Your task to perform on an android device: open app "Firefox Browser" (install if not already installed) and go to login screen Image 0: 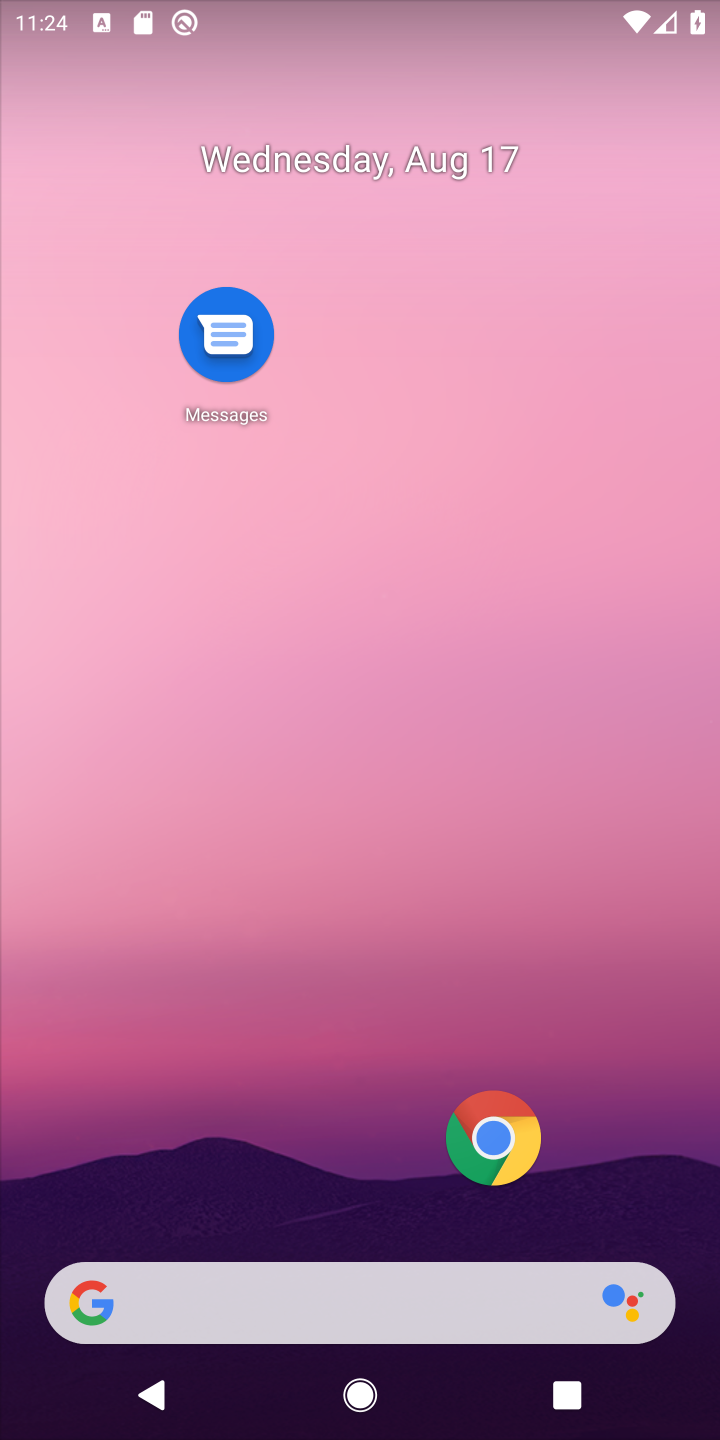
Step 0: drag from (394, 1279) to (562, 476)
Your task to perform on an android device: open app "Firefox Browser" (install if not already installed) and go to login screen Image 1: 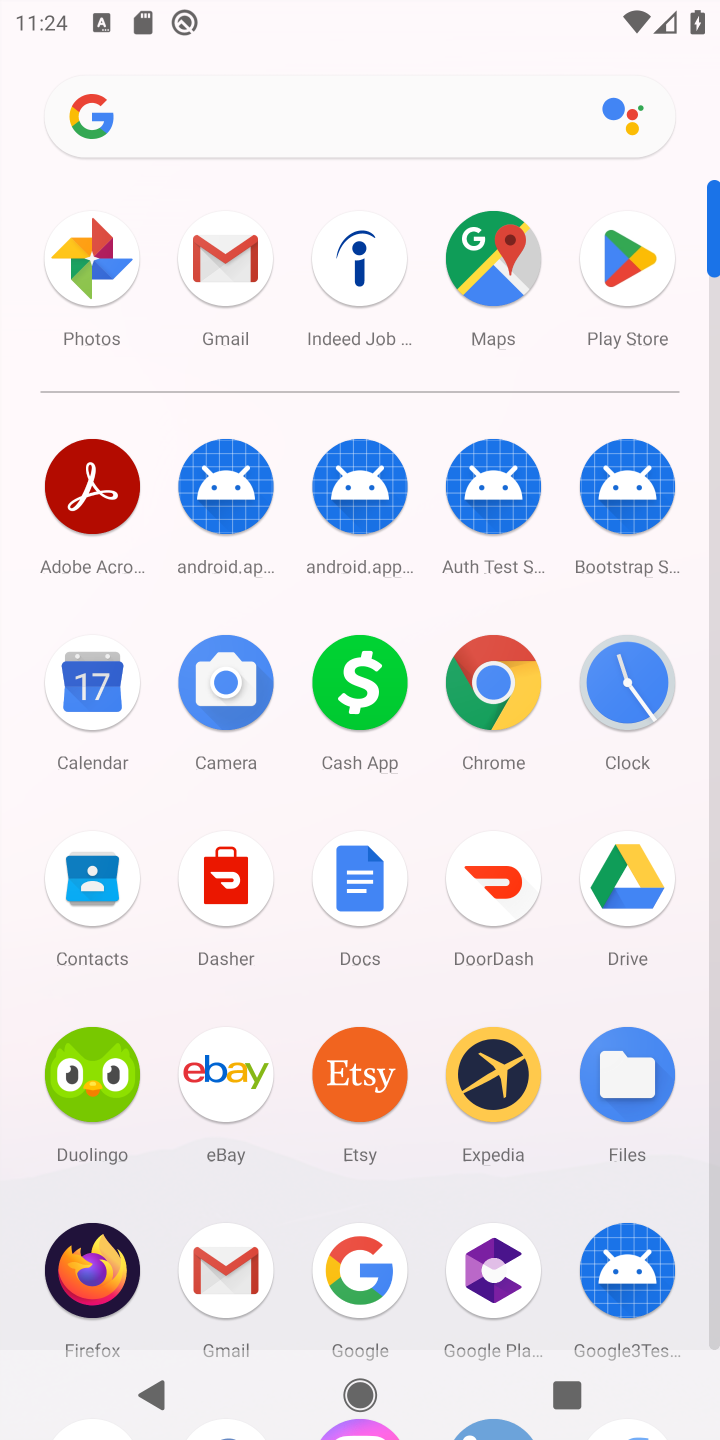
Step 1: click (632, 250)
Your task to perform on an android device: open app "Firefox Browser" (install if not already installed) and go to login screen Image 2: 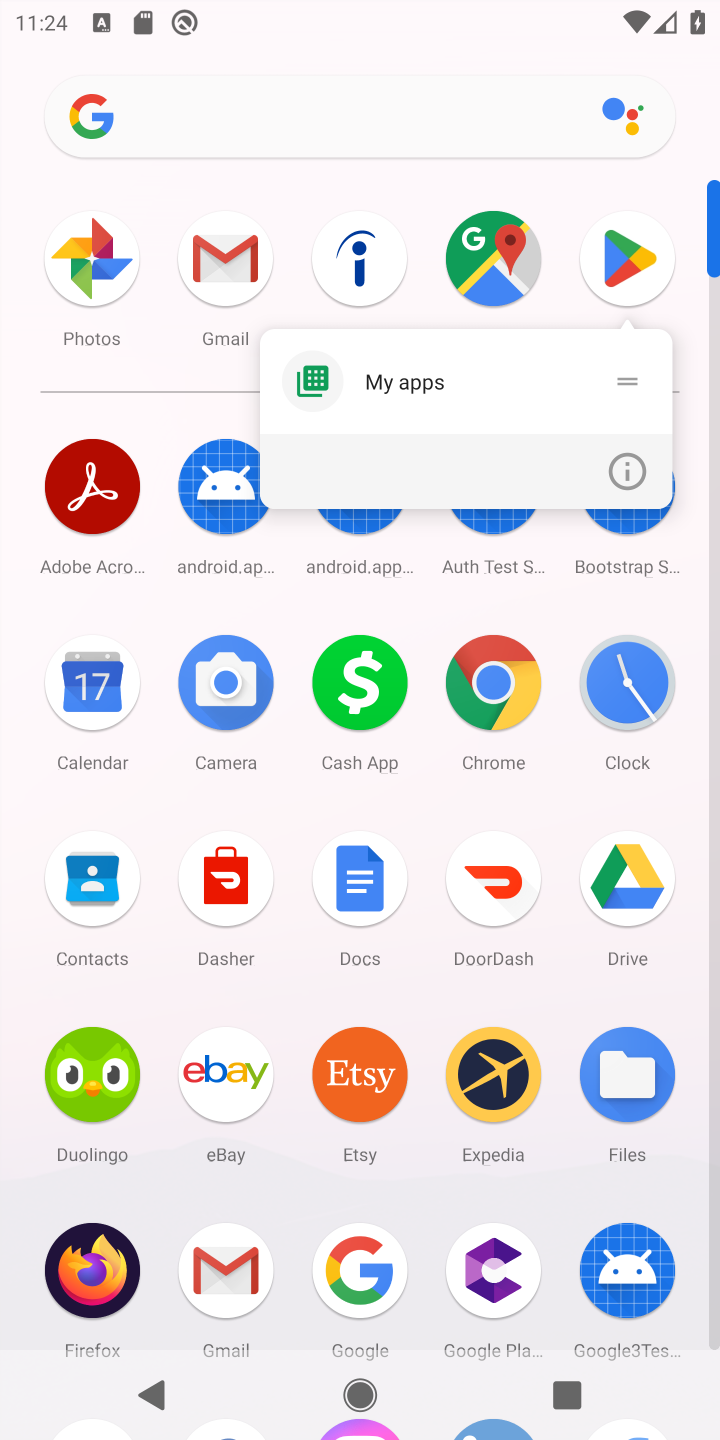
Step 2: click (632, 250)
Your task to perform on an android device: open app "Firefox Browser" (install if not already installed) and go to login screen Image 3: 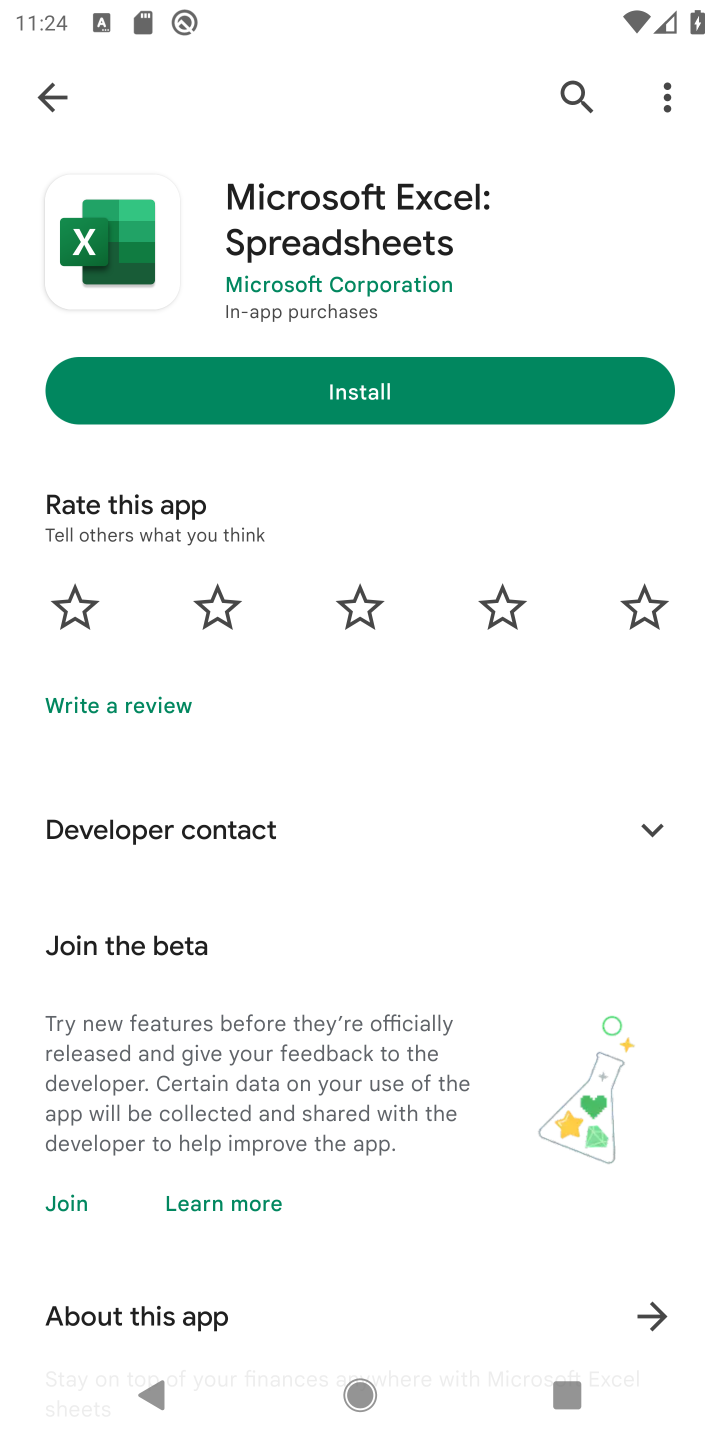
Step 3: click (70, 91)
Your task to perform on an android device: open app "Firefox Browser" (install if not already installed) and go to login screen Image 4: 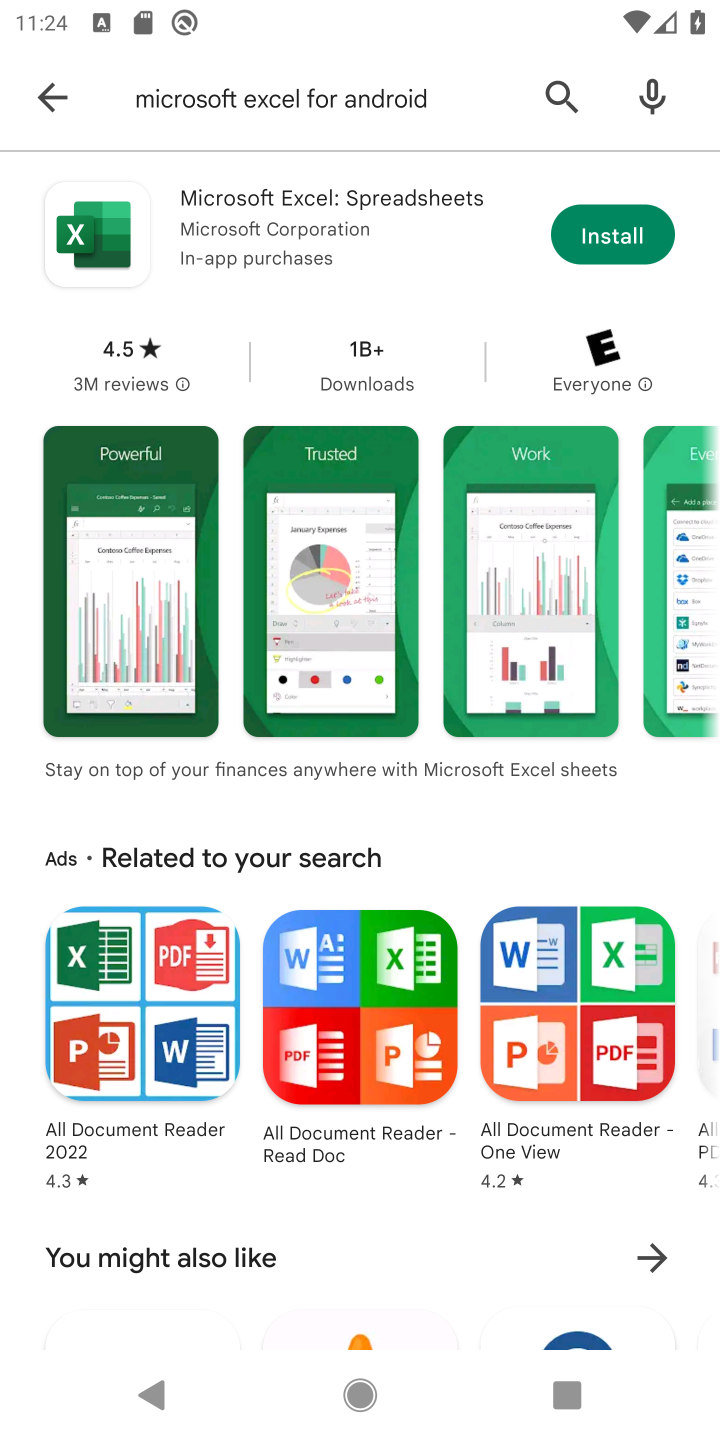
Step 4: click (70, 91)
Your task to perform on an android device: open app "Firefox Browser" (install if not already installed) and go to login screen Image 5: 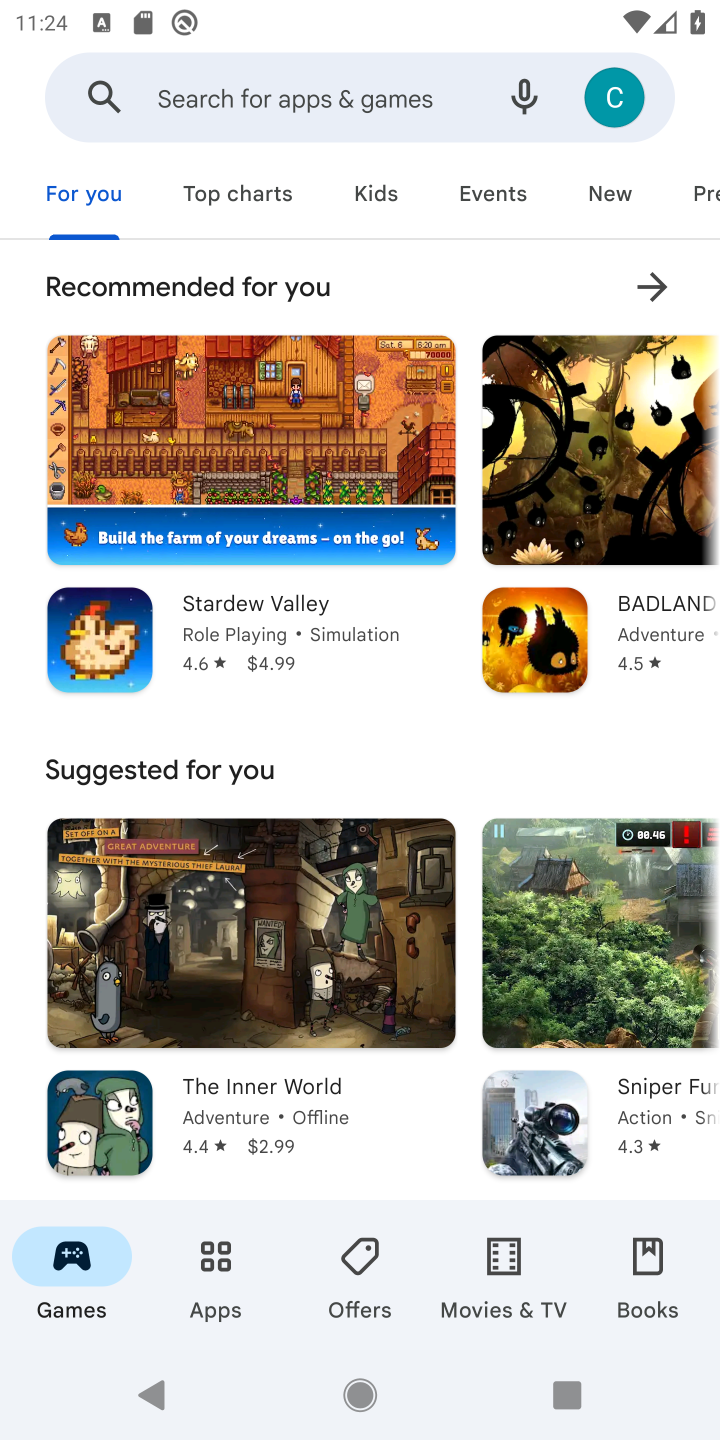
Step 5: click (327, 86)
Your task to perform on an android device: open app "Firefox Browser" (install if not already installed) and go to login screen Image 6: 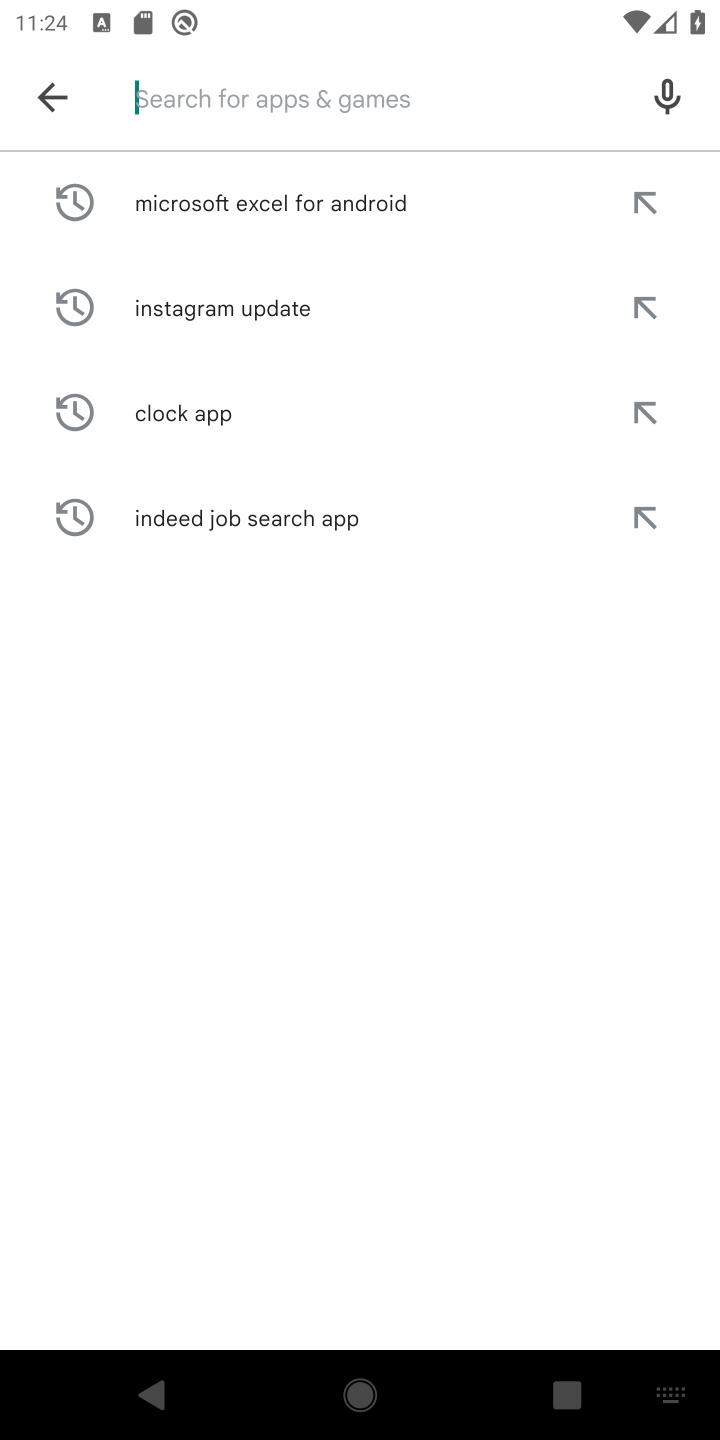
Step 6: type "Firefox Browser "
Your task to perform on an android device: open app "Firefox Browser" (install if not already installed) and go to login screen Image 7: 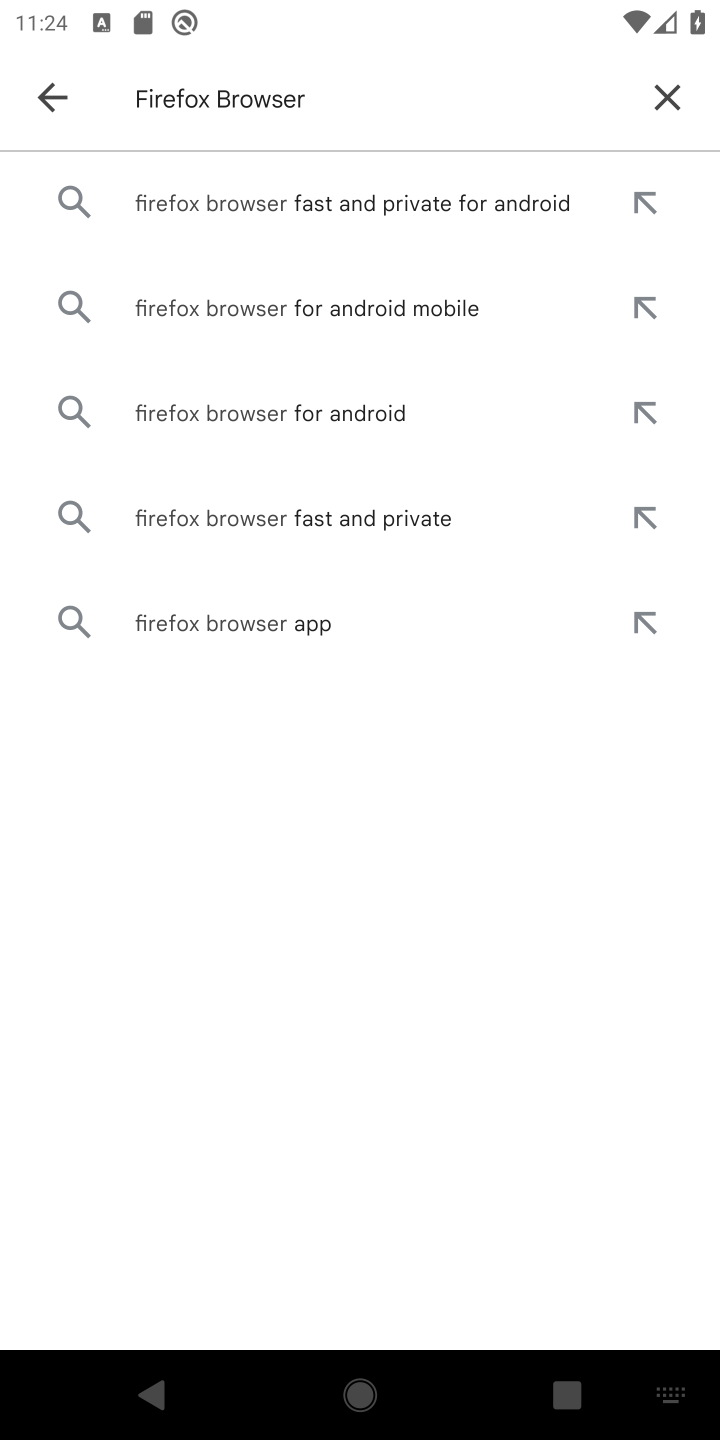
Step 7: click (391, 428)
Your task to perform on an android device: open app "Firefox Browser" (install if not already installed) and go to login screen Image 8: 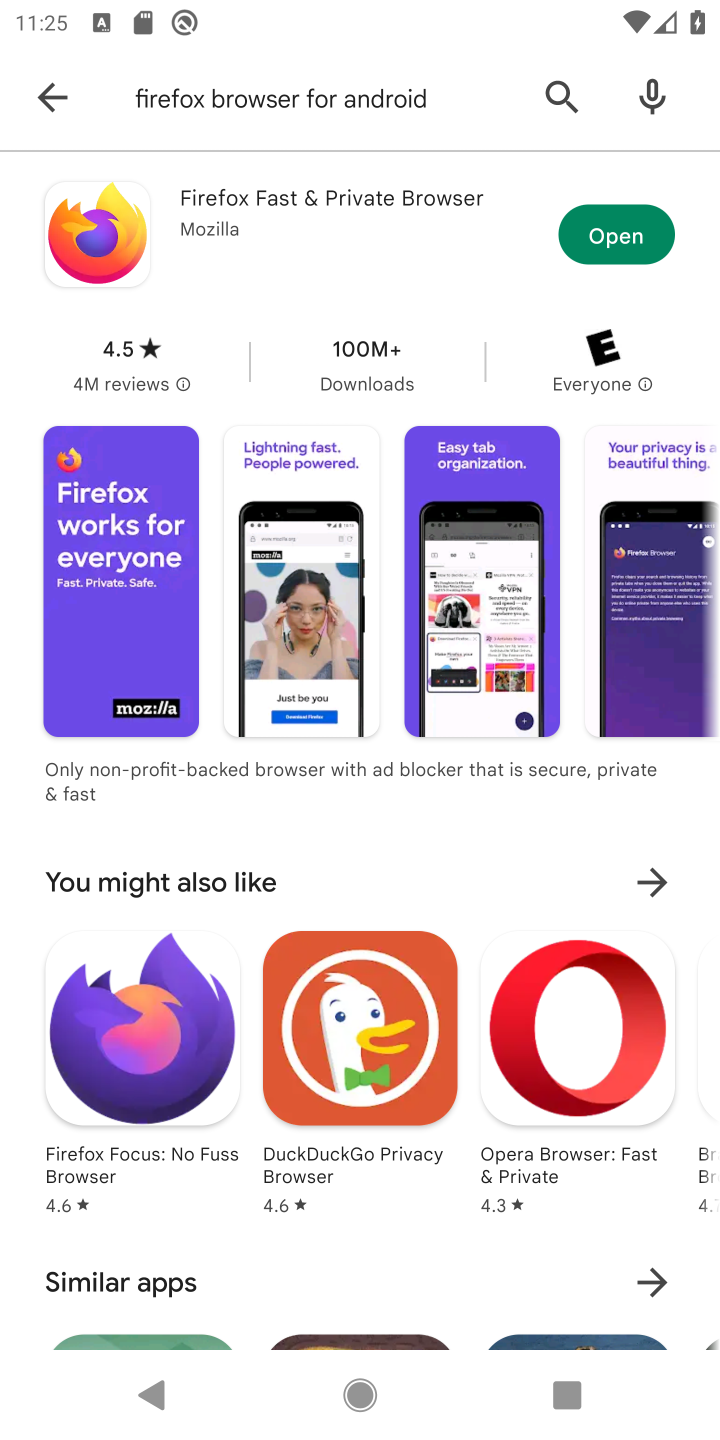
Step 8: click (618, 222)
Your task to perform on an android device: open app "Firefox Browser" (install if not already installed) and go to login screen Image 9: 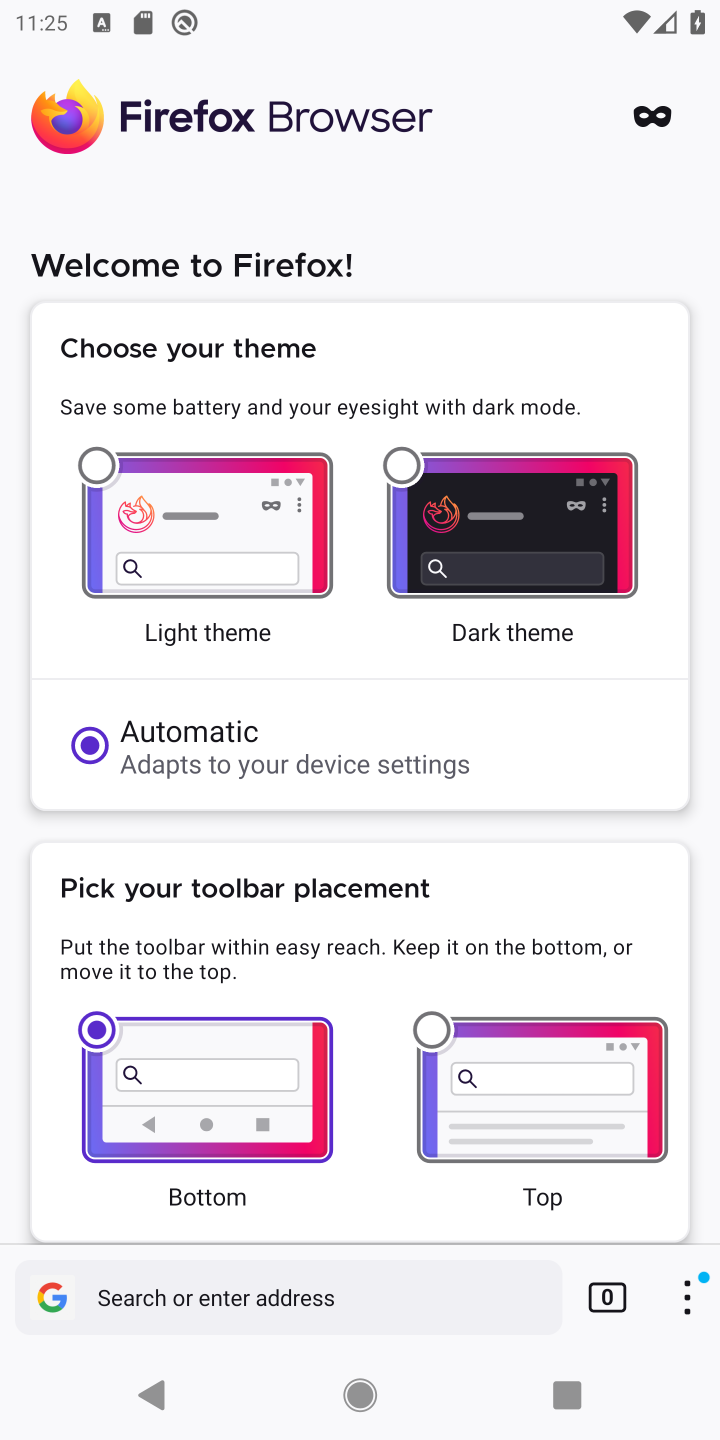
Step 9: task complete